Your task to perform on an android device: Open the phone app and click the voicemail tab. Image 0: 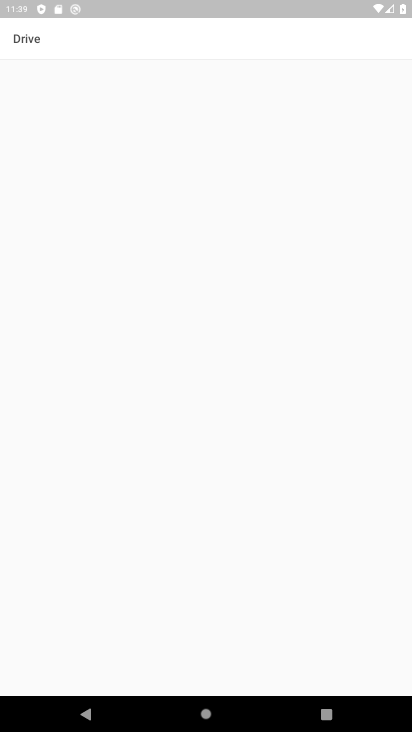
Step 0: press home button
Your task to perform on an android device: Open the phone app and click the voicemail tab. Image 1: 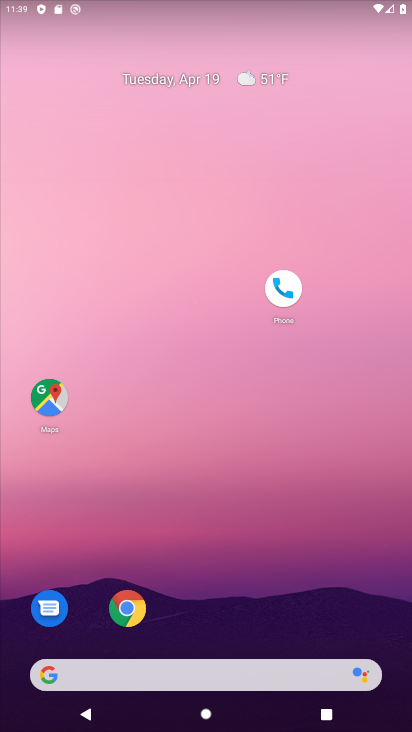
Step 1: drag from (165, 645) to (241, 105)
Your task to perform on an android device: Open the phone app and click the voicemail tab. Image 2: 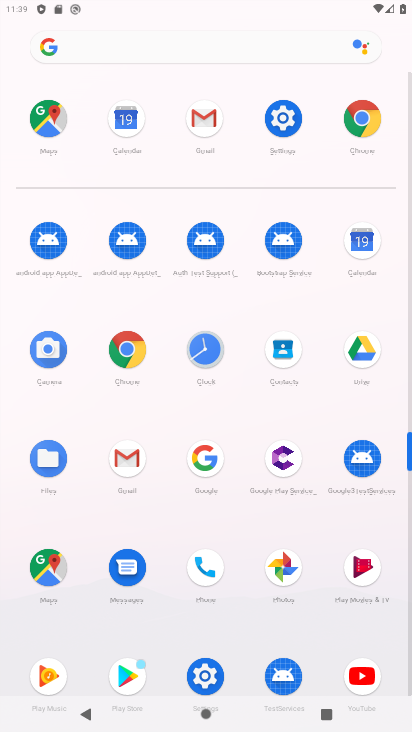
Step 2: click (205, 580)
Your task to perform on an android device: Open the phone app and click the voicemail tab. Image 3: 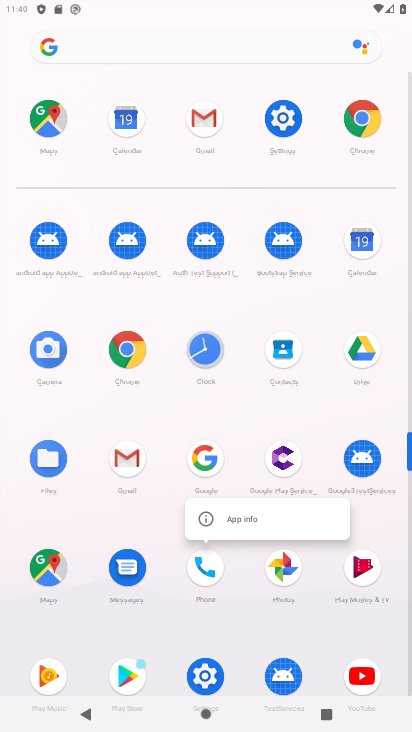
Step 3: click (195, 573)
Your task to perform on an android device: Open the phone app and click the voicemail tab. Image 4: 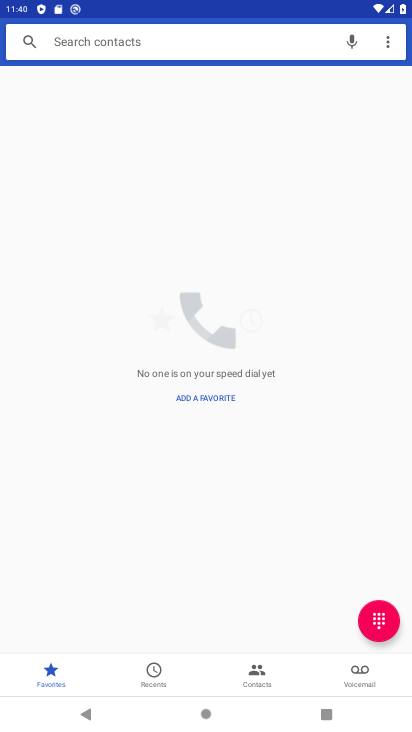
Step 4: click (357, 686)
Your task to perform on an android device: Open the phone app and click the voicemail tab. Image 5: 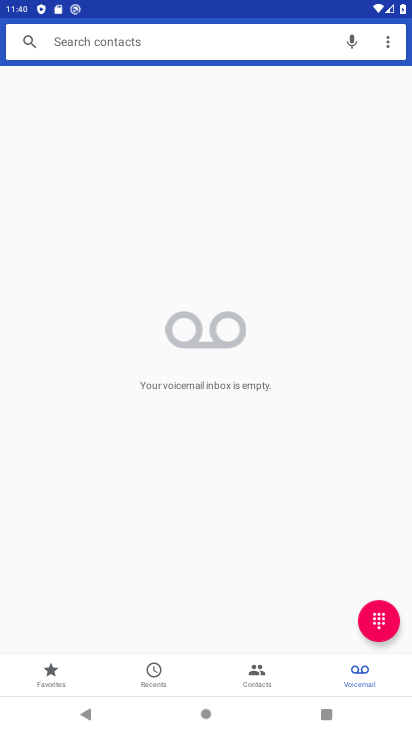
Step 5: task complete